Your task to perform on an android device: add a contact in the contacts app Image 0: 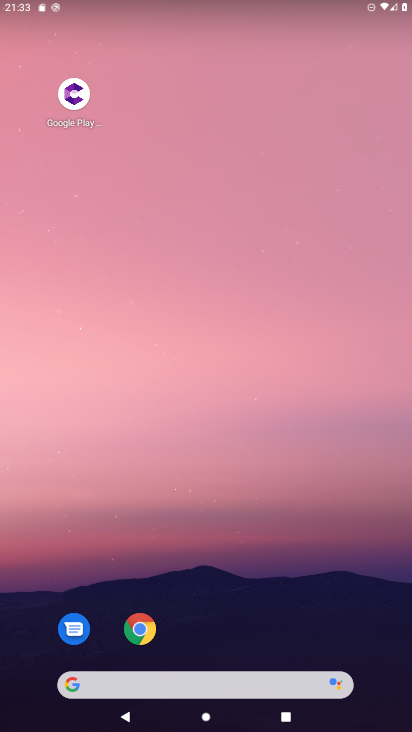
Step 0: drag from (254, 647) to (257, 177)
Your task to perform on an android device: add a contact in the contacts app Image 1: 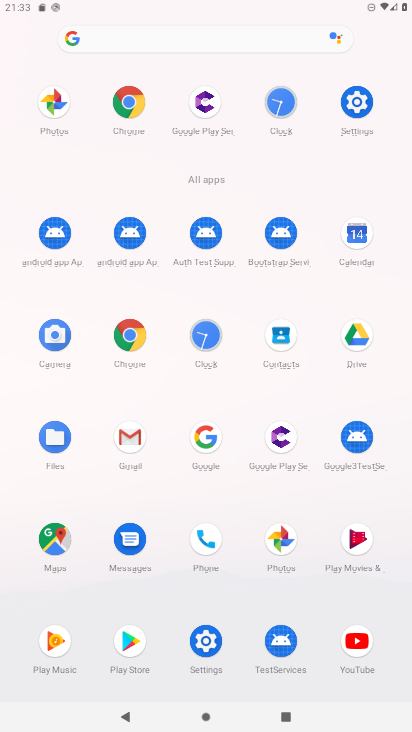
Step 1: click (200, 533)
Your task to perform on an android device: add a contact in the contacts app Image 2: 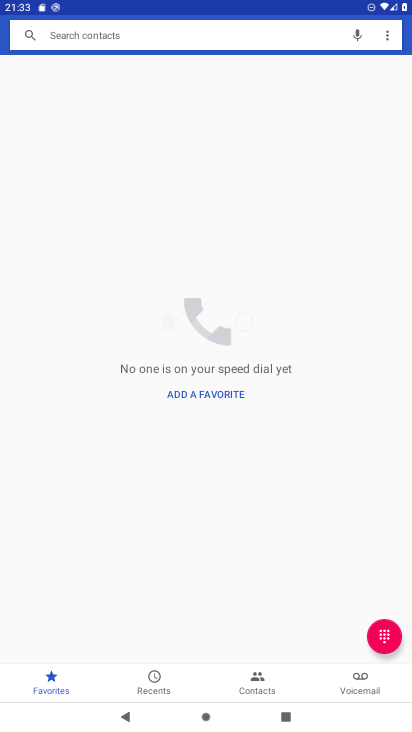
Step 2: click (216, 387)
Your task to perform on an android device: add a contact in the contacts app Image 3: 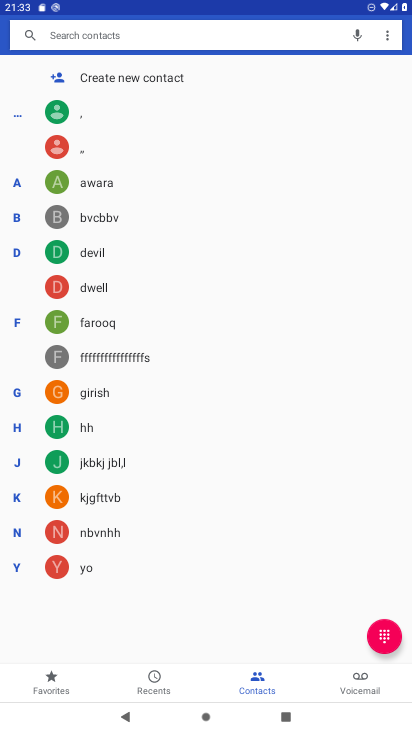
Step 3: click (120, 66)
Your task to perform on an android device: add a contact in the contacts app Image 4: 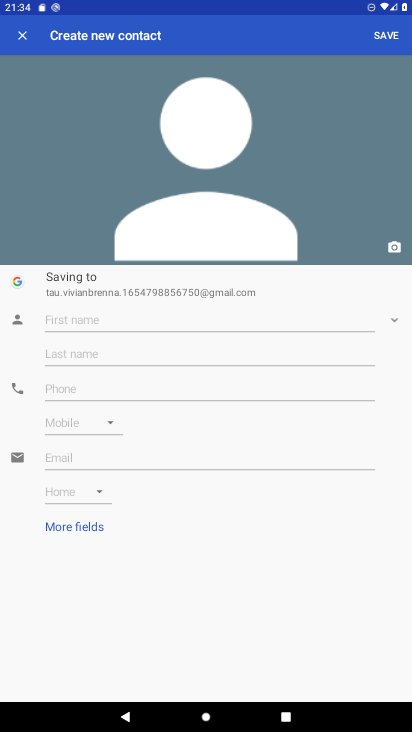
Step 4: click (159, 320)
Your task to perform on an android device: add a contact in the contacts app Image 5: 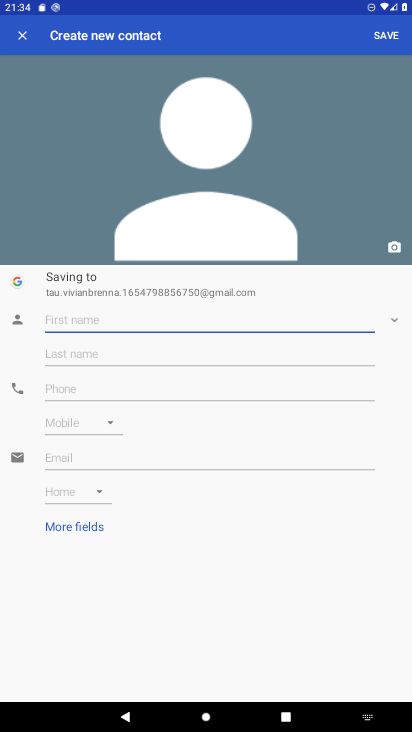
Step 5: type "asdfghjkl; "
Your task to perform on an android device: add a contact in the contacts app Image 6: 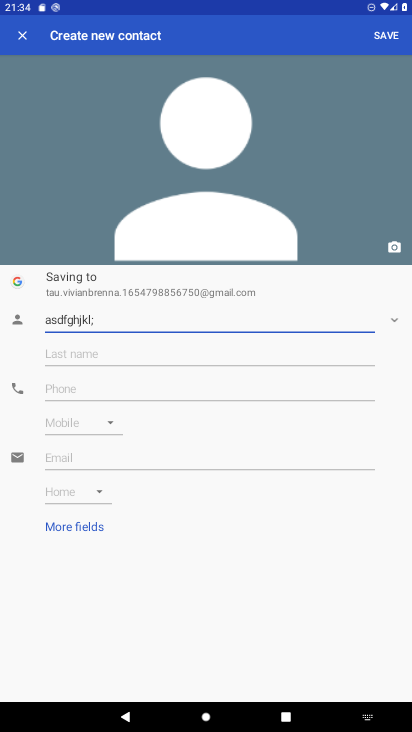
Step 6: click (96, 382)
Your task to perform on an android device: add a contact in the contacts app Image 7: 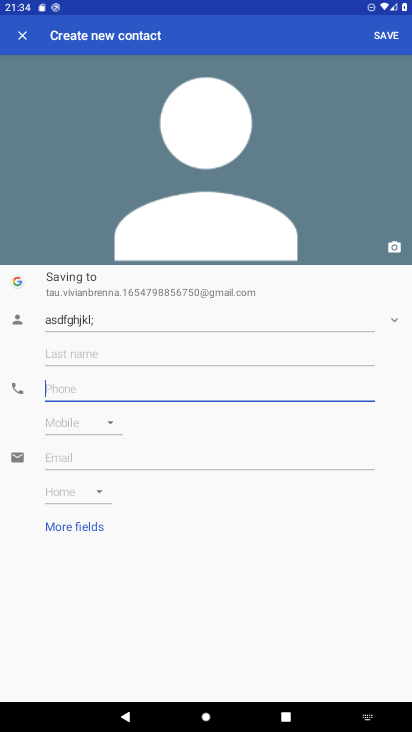
Step 7: type "1234567890-- "
Your task to perform on an android device: add a contact in the contacts app Image 8: 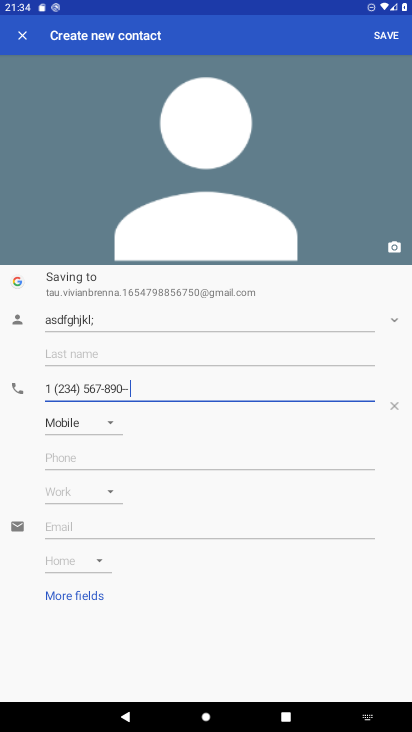
Step 8: click (389, 36)
Your task to perform on an android device: add a contact in the contacts app Image 9: 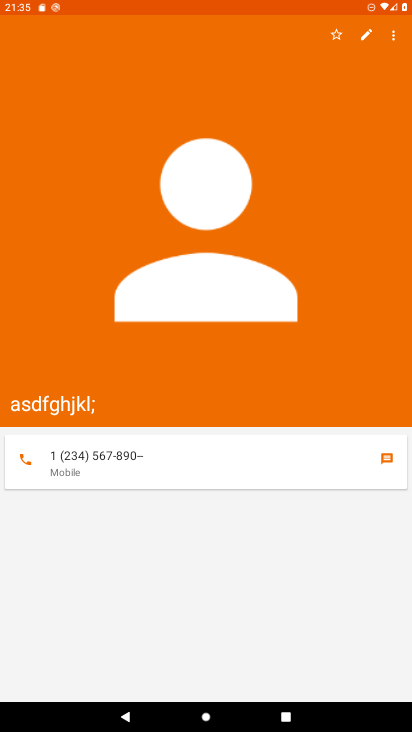
Step 9: task complete